Your task to perform on an android device: turn on notifications settings in the gmail app Image 0: 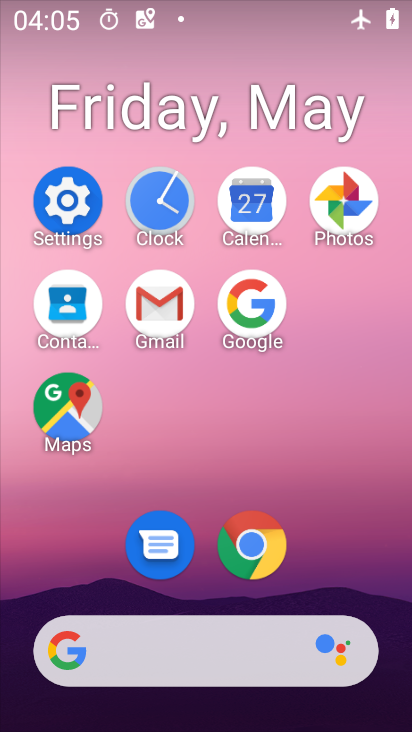
Step 0: click (154, 316)
Your task to perform on an android device: turn on notifications settings in the gmail app Image 1: 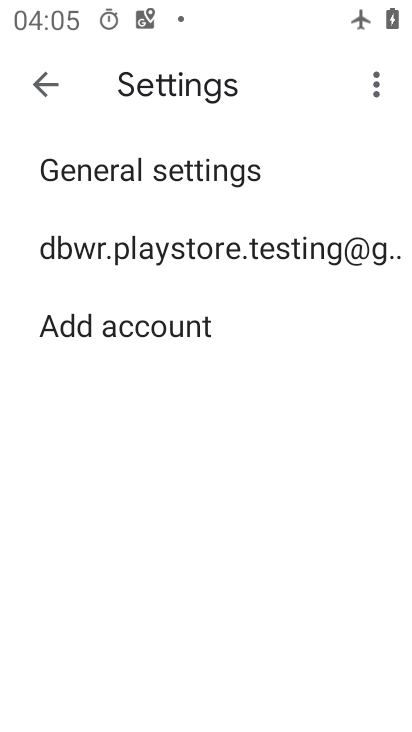
Step 1: click (25, 87)
Your task to perform on an android device: turn on notifications settings in the gmail app Image 2: 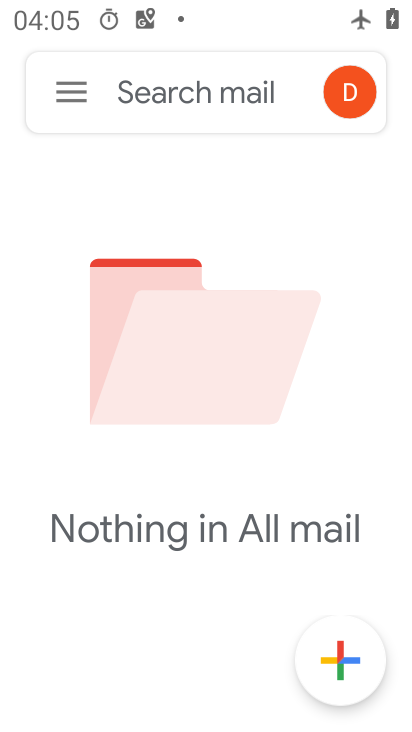
Step 2: click (56, 84)
Your task to perform on an android device: turn on notifications settings in the gmail app Image 3: 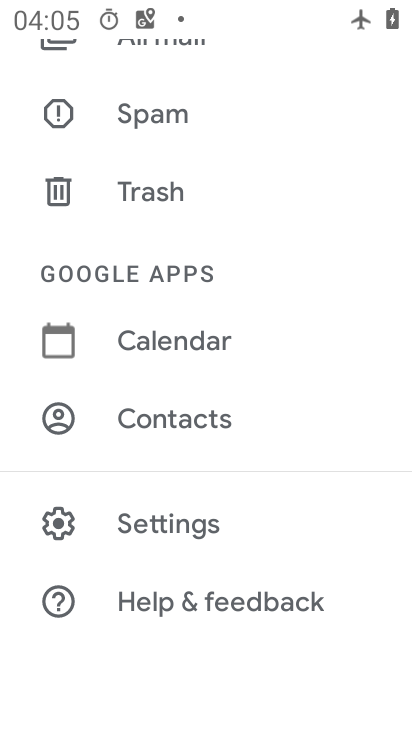
Step 3: click (195, 515)
Your task to perform on an android device: turn on notifications settings in the gmail app Image 4: 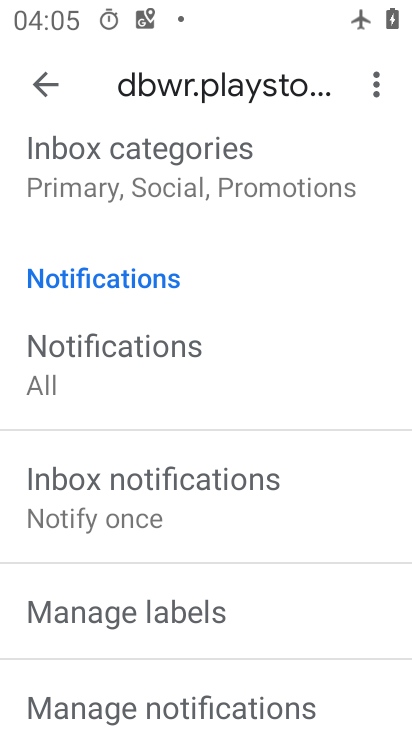
Step 4: click (197, 341)
Your task to perform on an android device: turn on notifications settings in the gmail app Image 5: 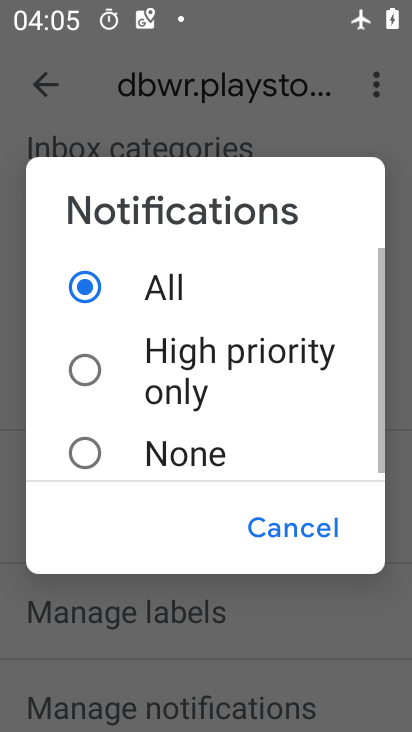
Step 5: task complete